Your task to perform on an android device: Find coffee shops on Maps Image 0: 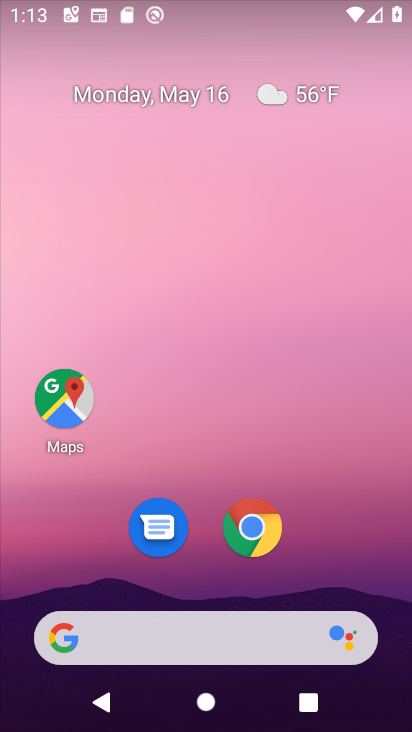
Step 0: click (67, 391)
Your task to perform on an android device: Find coffee shops on Maps Image 1: 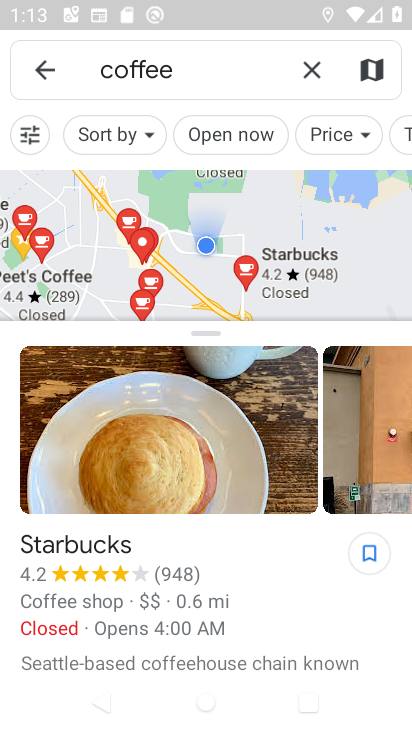
Step 1: task complete